Your task to perform on an android device: What's on my calendar today? Image 0: 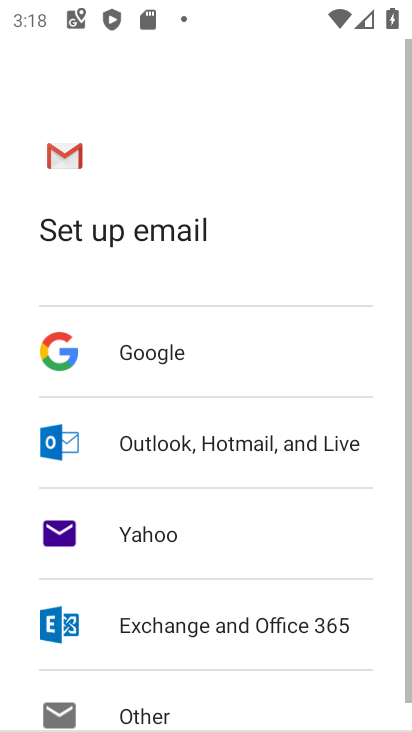
Step 0: press home button
Your task to perform on an android device: What's on my calendar today? Image 1: 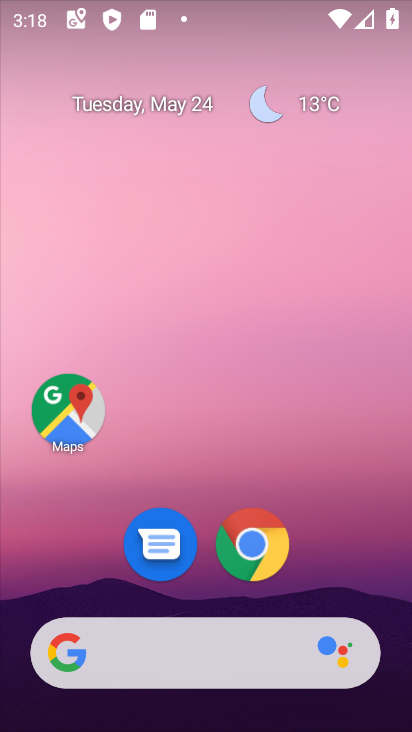
Step 1: drag from (344, 559) to (302, 106)
Your task to perform on an android device: What's on my calendar today? Image 2: 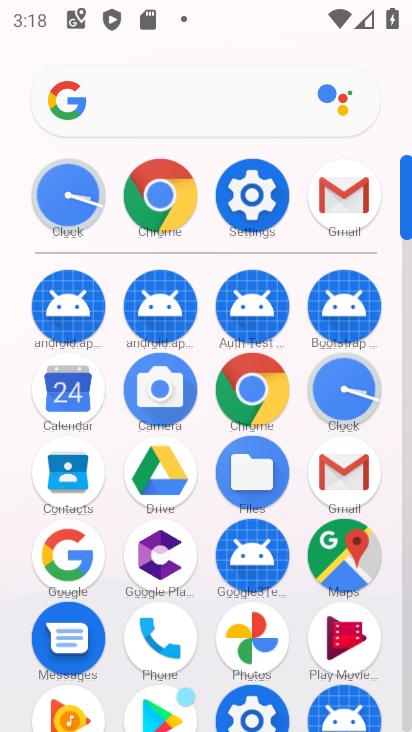
Step 2: click (60, 389)
Your task to perform on an android device: What's on my calendar today? Image 3: 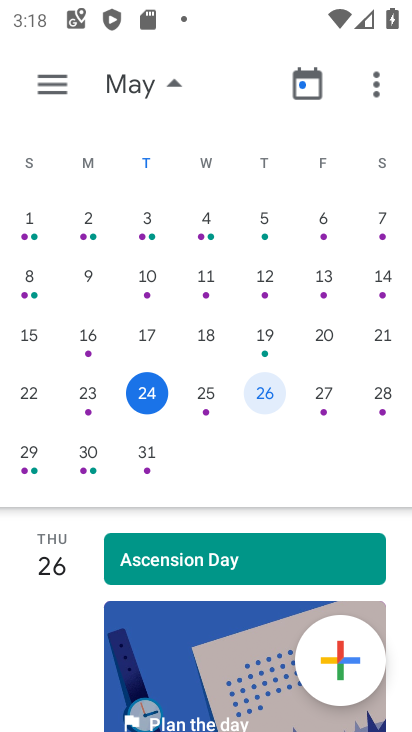
Step 3: task complete